Your task to perform on an android device: open app "Pluto TV - Live TV and Movies" (install if not already installed), go to login, and select forgot password Image 0: 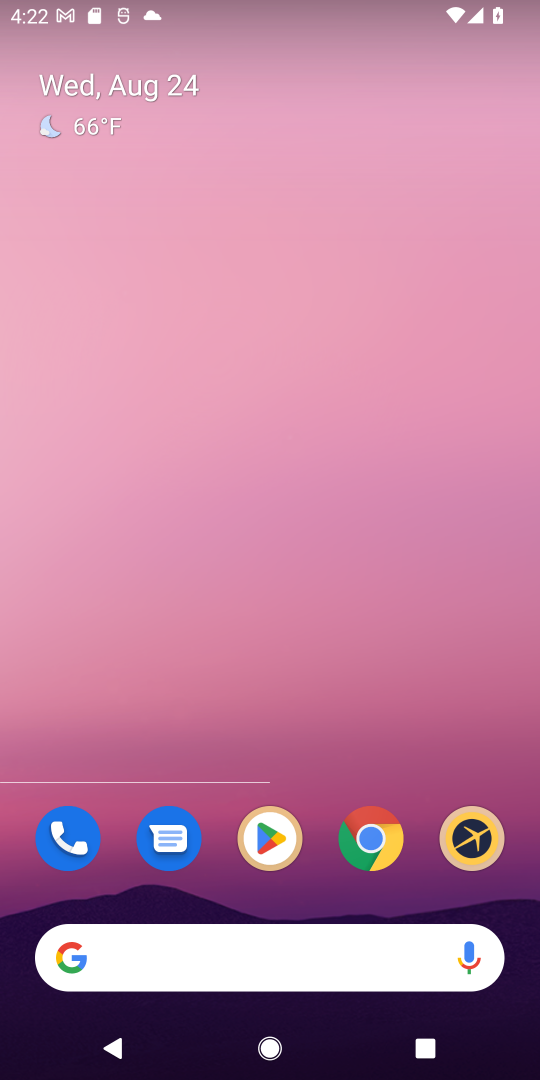
Step 0: press home button
Your task to perform on an android device: open app "Pluto TV - Live TV and Movies" (install if not already installed), go to login, and select forgot password Image 1: 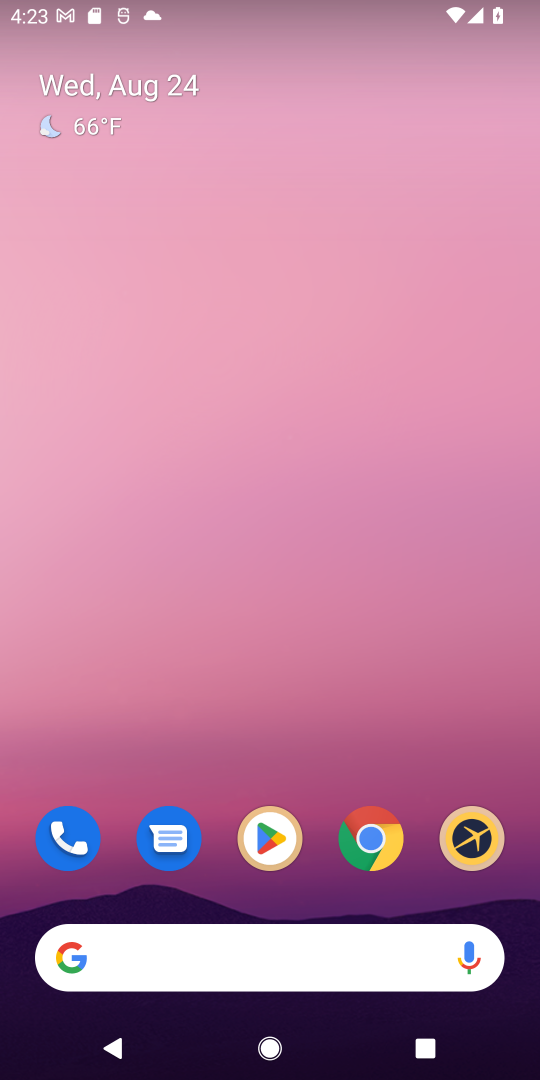
Step 1: click (266, 833)
Your task to perform on an android device: open app "Pluto TV - Live TV and Movies" (install if not already installed), go to login, and select forgot password Image 2: 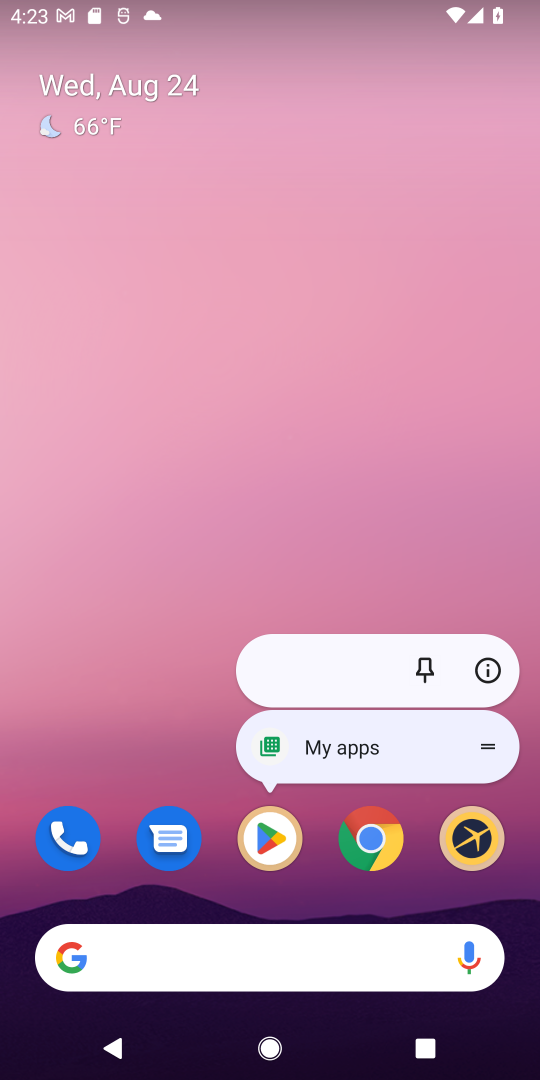
Step 2: click (266, 833)
Your task to perform on an android device: open app "Pluto TV - Live TV and Movies" (install if not already installed), go to login, and select forgot password Image 3: 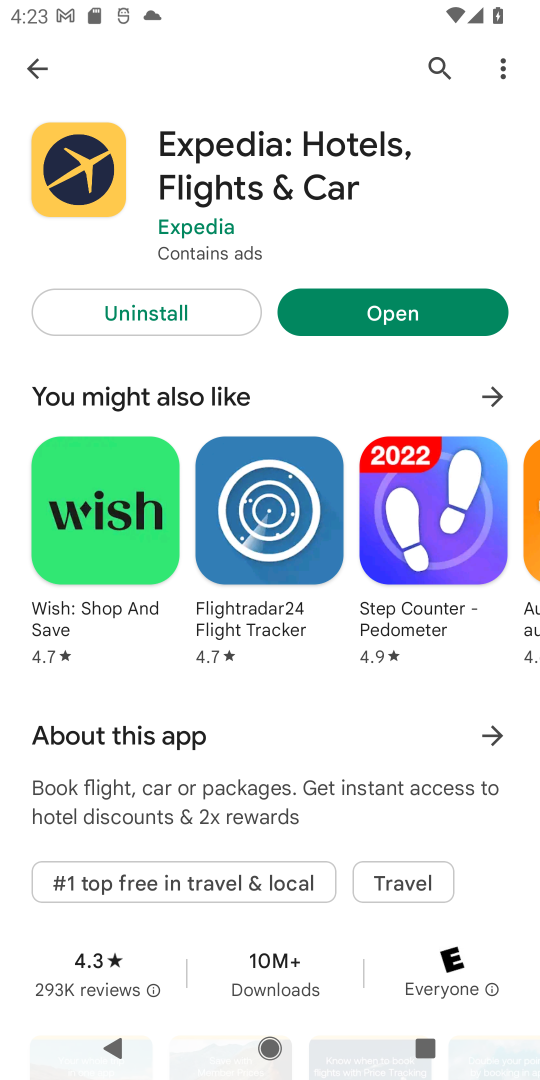
Step 3: click (436, 68)
Your task to perform on an android device: open app "Pluto TV - Live TV and Movies" (install if not already installed), go to login, and select forgot password Image 4: 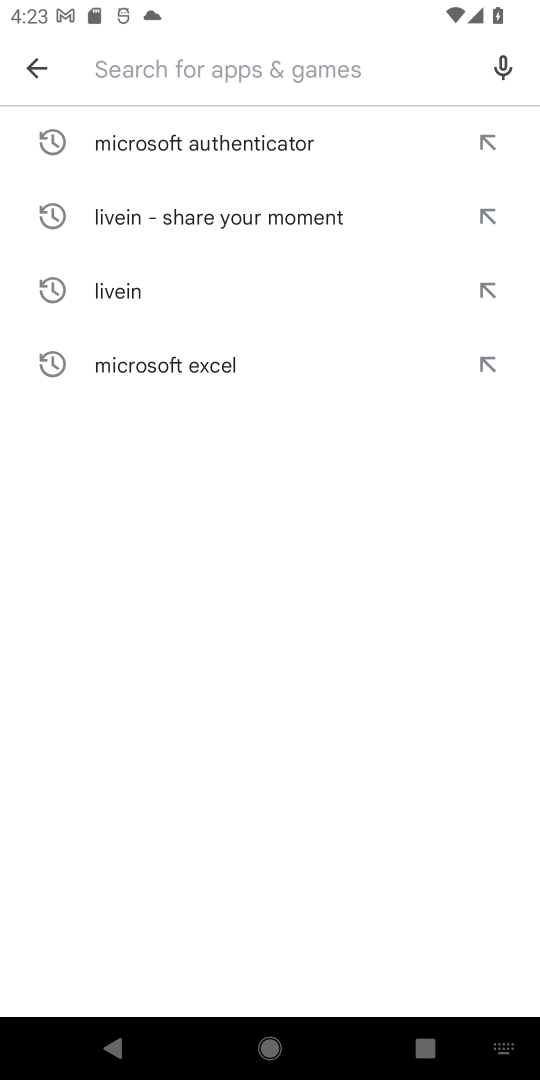
Step 4: type "Pluto TV - Live TV and Movies"
Your task to perform on an android device: open app "Pluto TV - Live TV and Movies" (install if not already installed), go to login, and select forgot password Image 5: 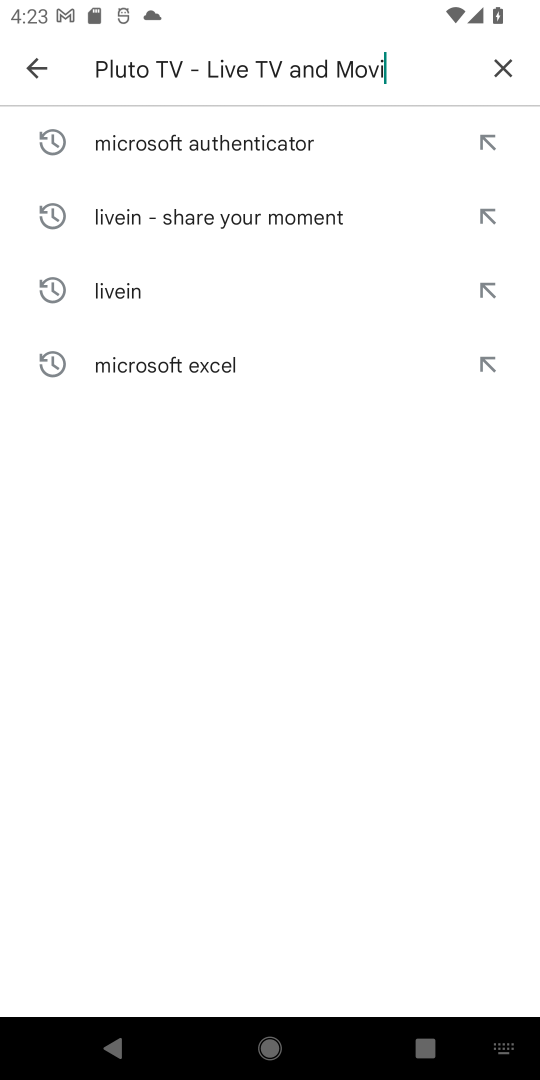
Step 5: type ""
Your task to perform on an android device: open app "Pluto TV - Live TV and Movies" (install if not already installed), go to login, and select forgot password Image 6: 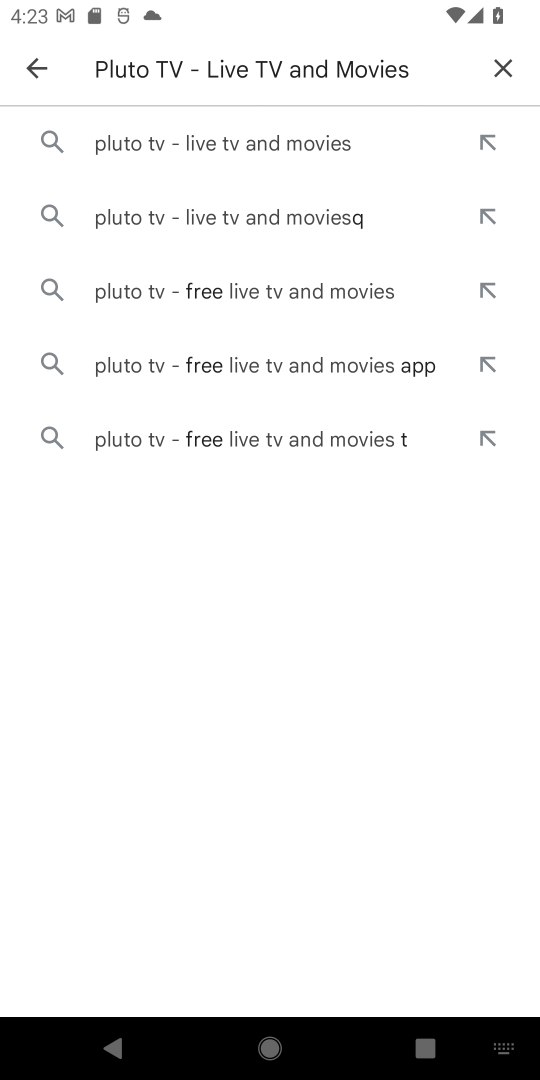
Step 6: click (368, 138)
Your task to perform on an android device: open app "Pluto TV - Live TV and Movies" (install if not already installed), go to login, and select forgot password Image 7: 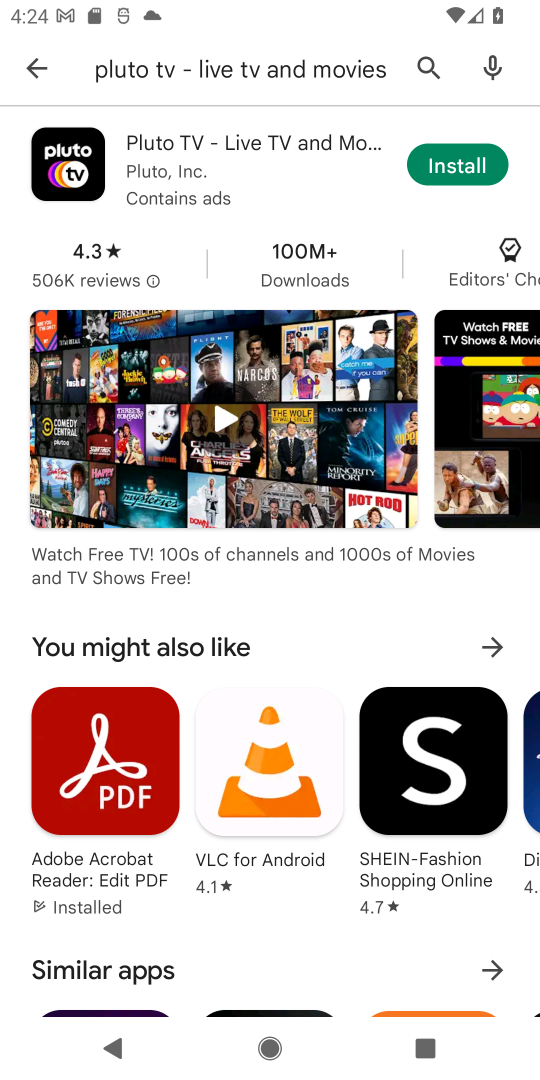
Step 7: click (457, 158)
Your task to perform on an android device: open app "Pluto TV - Live TV and Movies" (install if not already installed), go to login, and select forgot password Image 8: 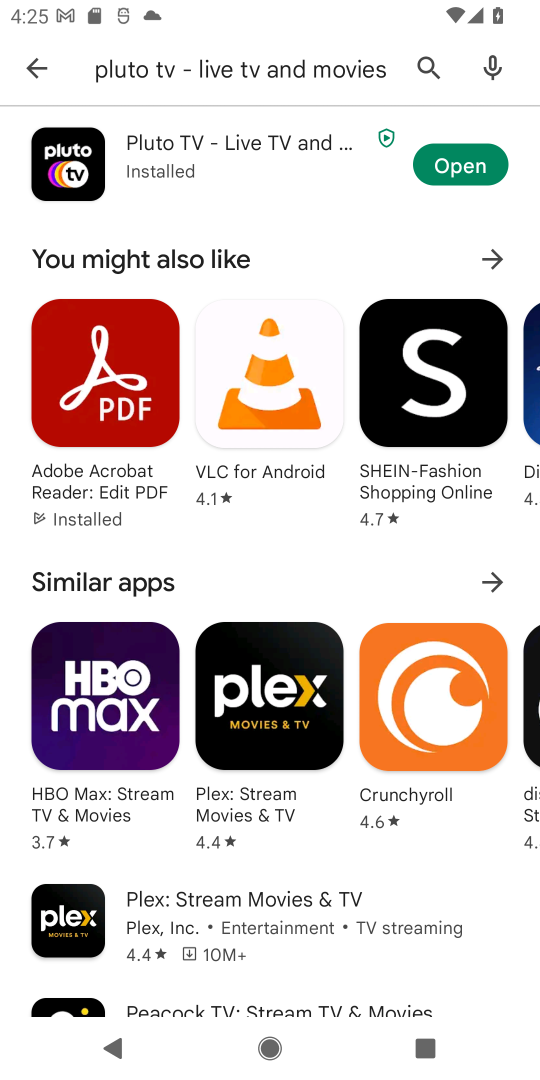
Step 8: click (477, 163)
Your task to perform on an android device: open app "Pluto TV - Live TV and Movies" (install if not already installed), go to login, and select forgot password Image 9: 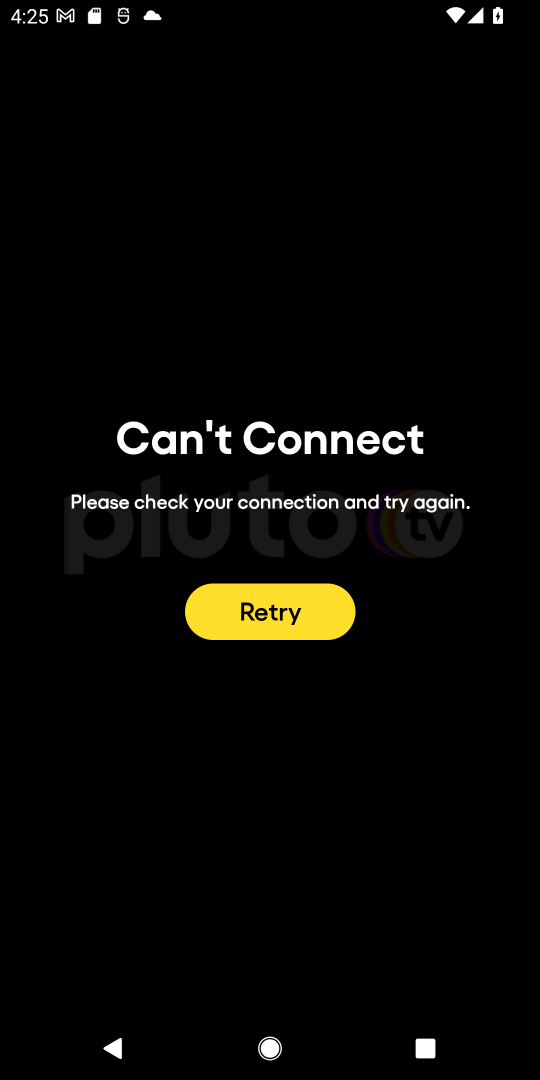
Step 9: task complete